Your task to perform on an android device: Open maps Image 0: 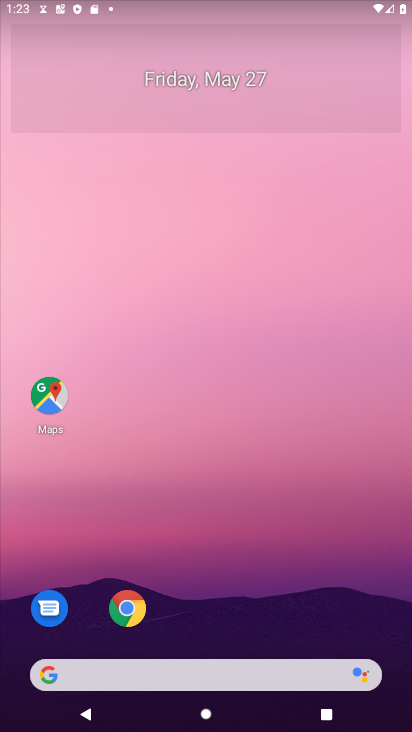
Step 0: click (46, 394)
Your task to perform on an android device: Open maps Image 1: 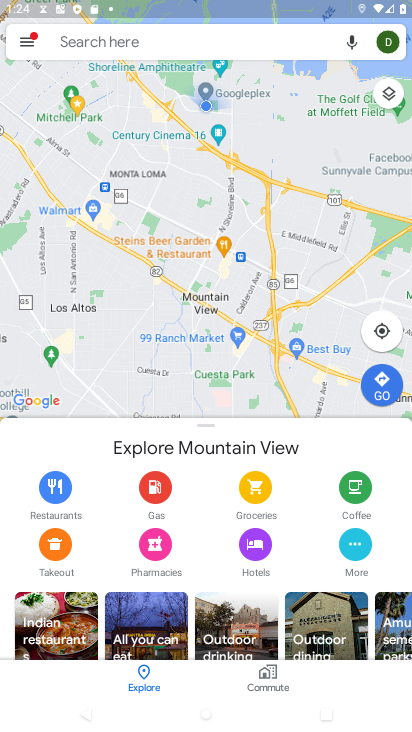
Step 1: task complete